Your task to perform on an android device: Open Google Maps Image 0: 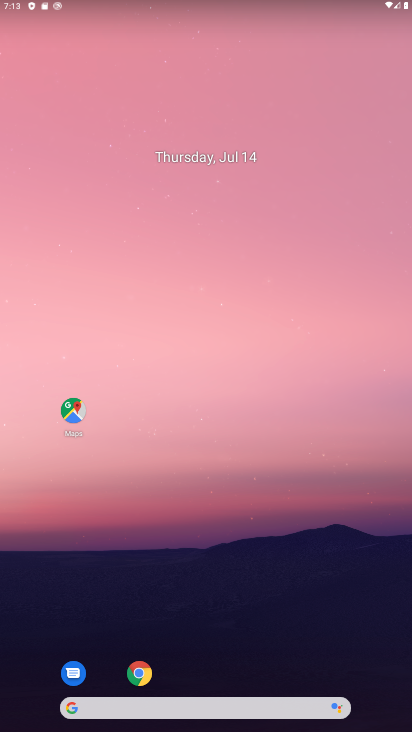
Step 0: press home button
Your task to perform on an android device: Open Google Maps Image 1: 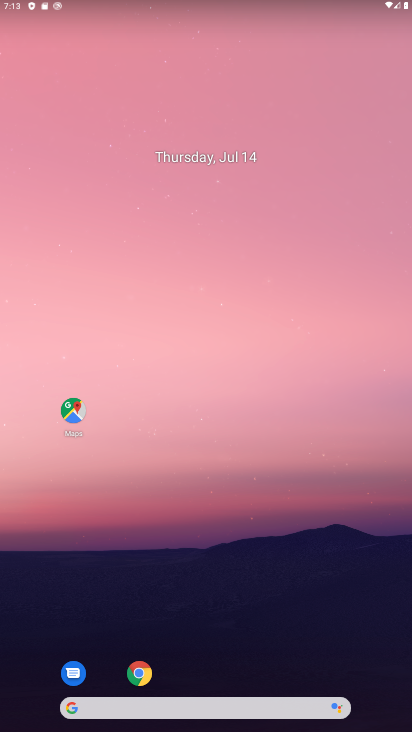
Step 1: click (70, 408)
Your task to perform on an android device: Open Google Maps Image 2: 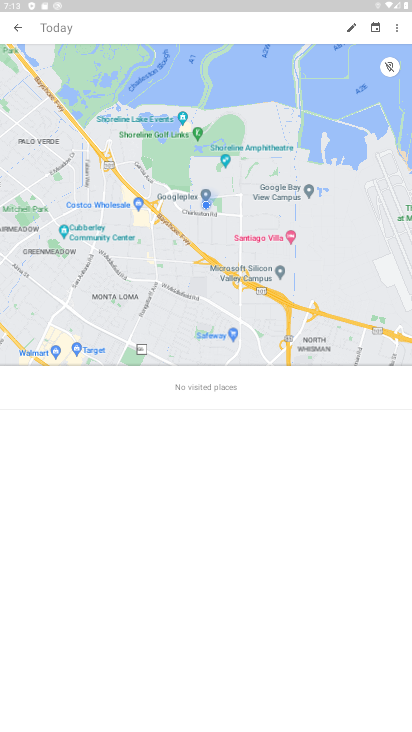
Step 2: click (15, 33)
Your task to perform on an android device: Open Google Maps Image 3: 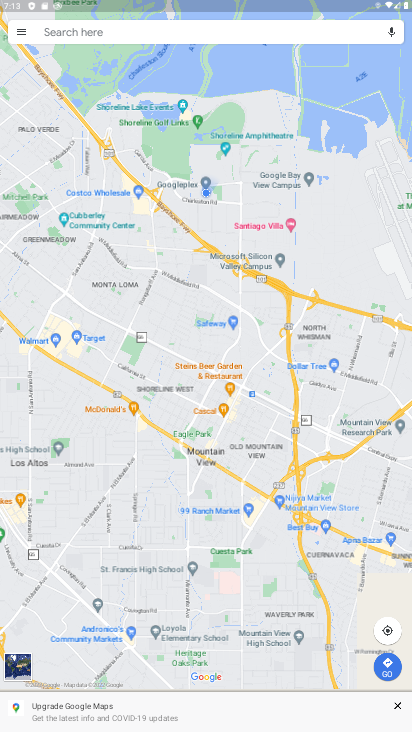
Step 3: task complete